Your task to perform on an android device: Open calendar and show me the third week of next month Image 0: 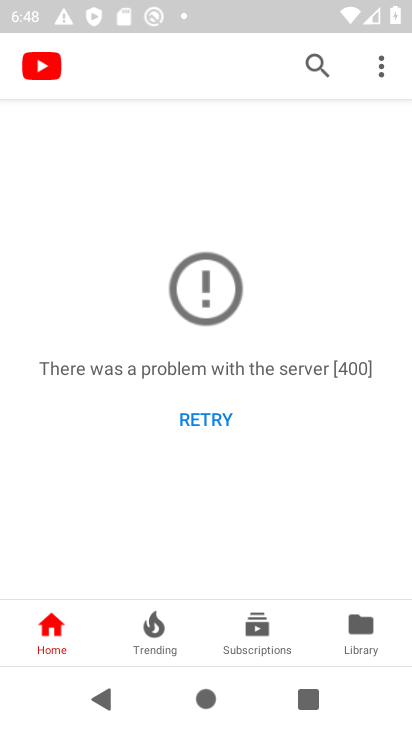
Step 0: press home button
Your task to perform on an android device: Open calendar and show me the third week of next month Image 1: 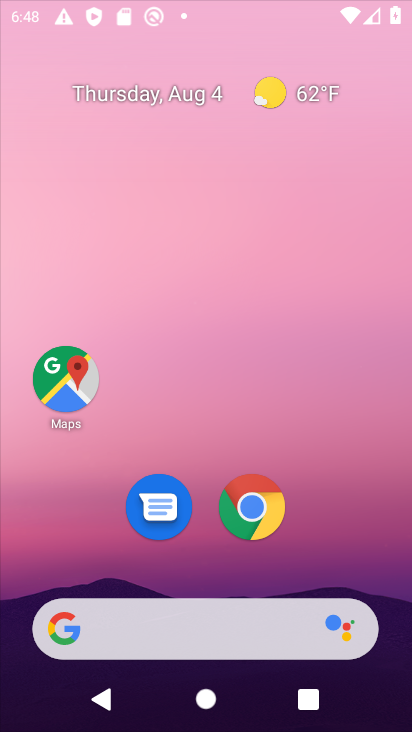
Step 1: drag from (382, 574) to (257, 22)
Your task to perform on an android device: Open calendar and show me the third week of next month Image 2: 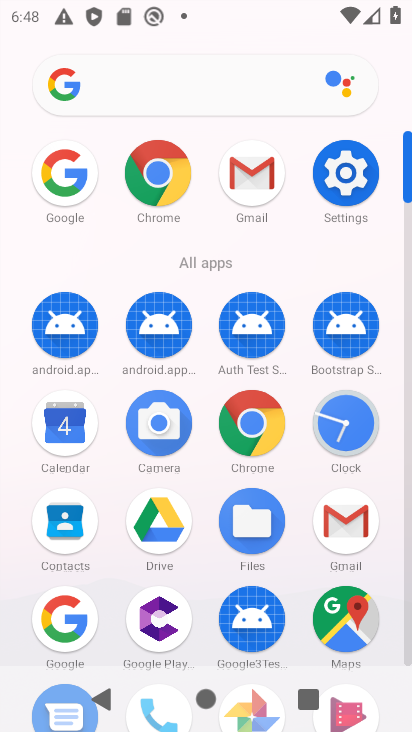
Step 2: click (74, 414)
Your task to perform on an android device: Open calendar and show me the third week of next month Image 3: 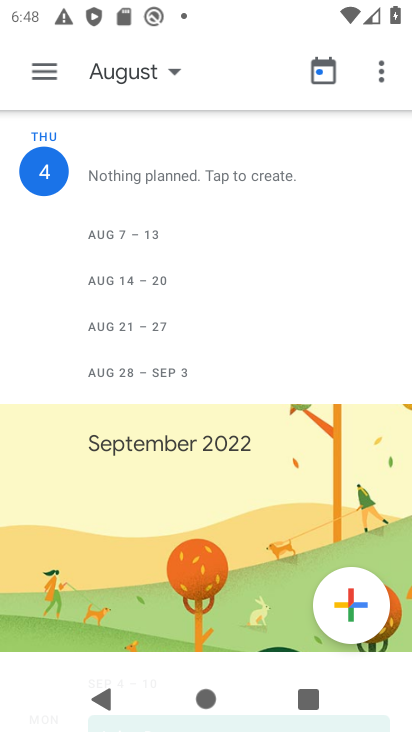
Step 3: click (140, 89)
Your task to perform on an android device: Open calendar and show me the third week of next month Image 4: 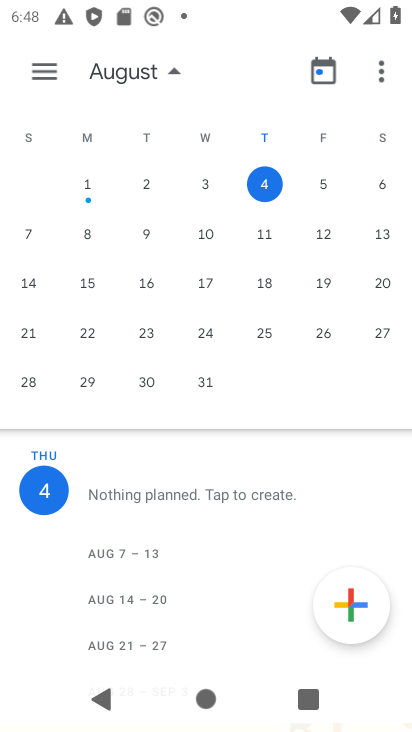
Step 4: drag from (350, 244) to (6, 277)
Your task to perform on an android device: Open calendar and show me the third week of next month Image 5: 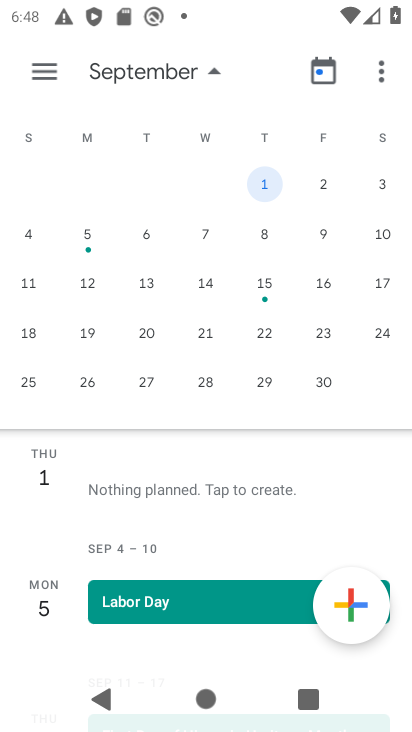
Step 5: click (25, 332)
Your task to perform on an android device: Open calendar and show me the third week of next month Image 6: 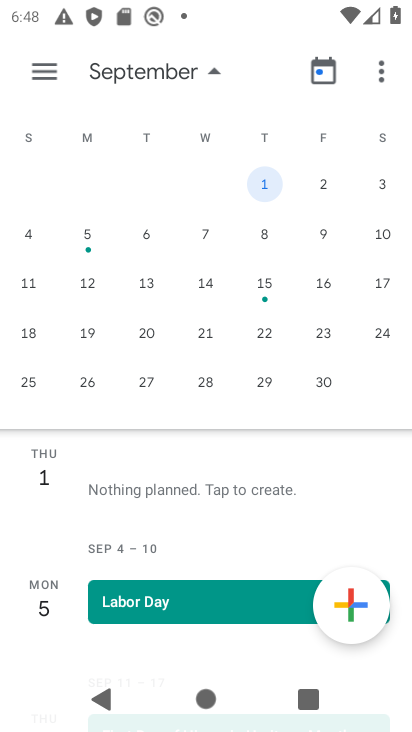
Step 6: click (27, 332)
Your task to perform on an android device: Open calendar and show me the third week of next month Image 7: 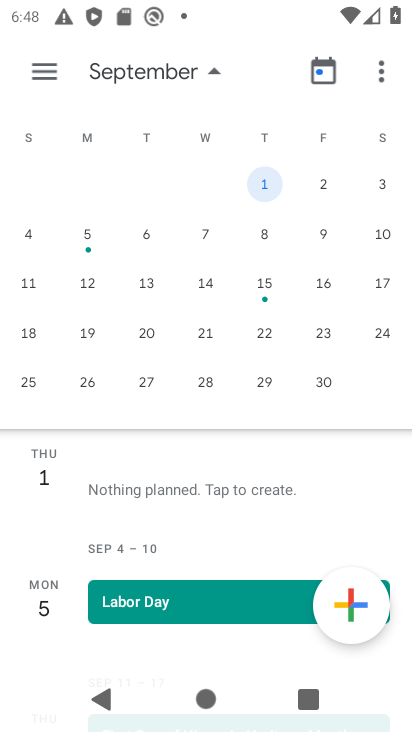
Step 7: click (31, 335)
Your task to perform on an android device: Open calendar and show me the third week of next month Image 8: 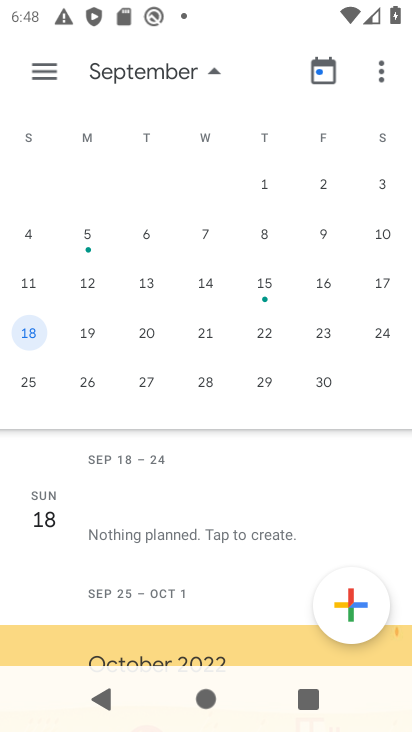
Step 8: task complete